Your task to perform on an android device: Open battery settings Image 0: 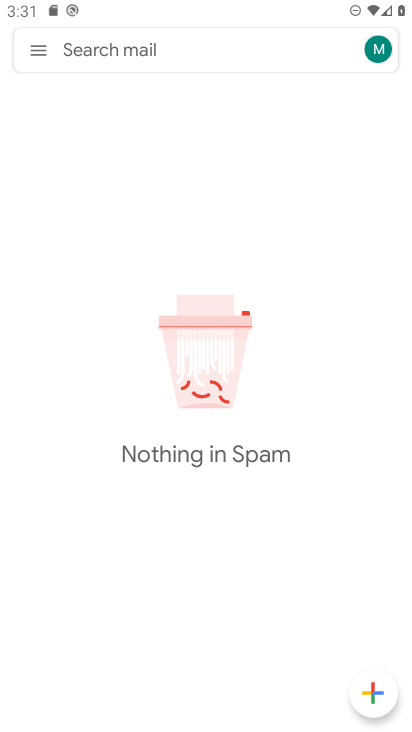
Step 0: drag from (293, 608) to (309, 170)
Your task to perform on an android device: Open battery settings Image 1: 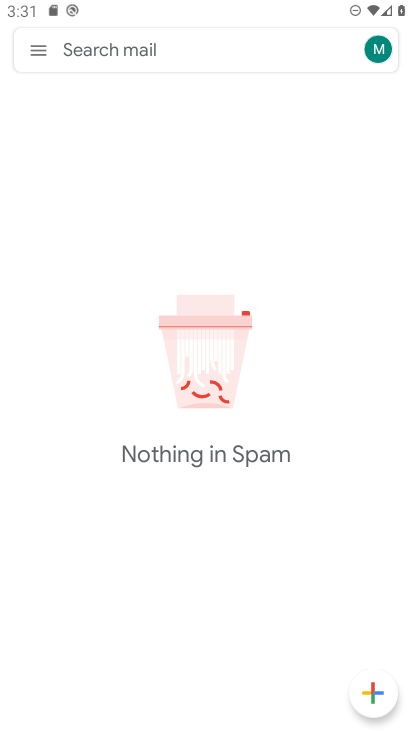
Step 1: press back button
Your task to perform on an android device: Open battery settings Image 2: 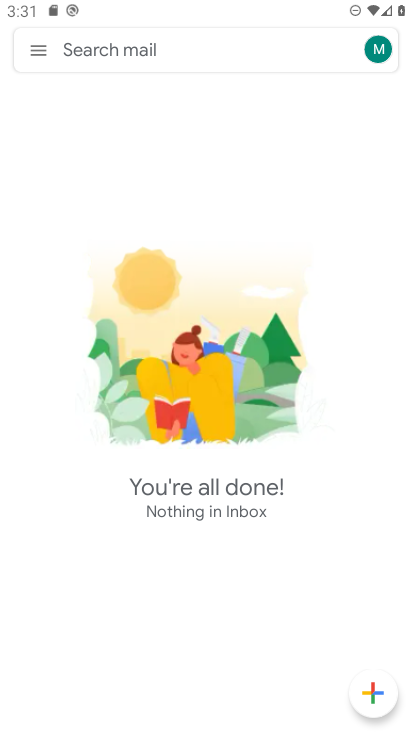
Step 2: press back button
Your task to perform on an android device: Open battery settings Image 3: 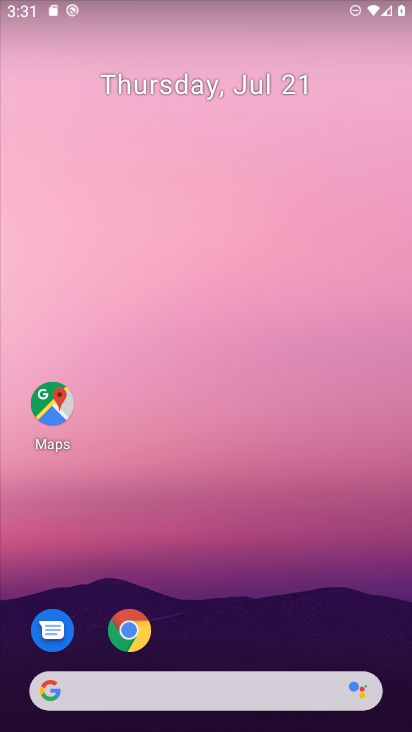
Step 3: drag from (130, 611) to (138, 13)
Your task to perform on an android device: Open battery settings Image 4: 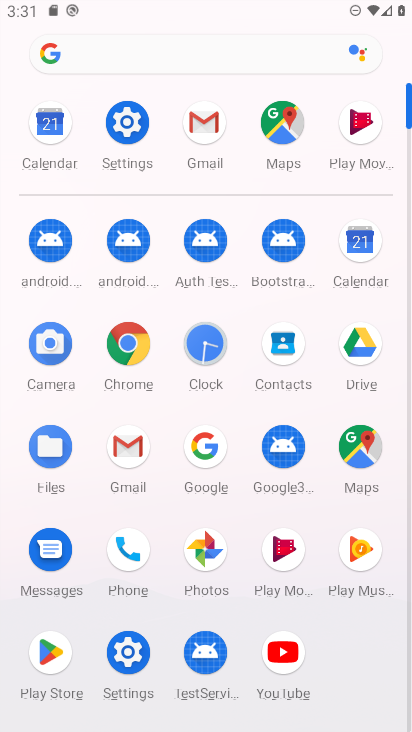
Step 4: click (126, 114)
Your task to perform on an android device: Open battery settings Image 5: 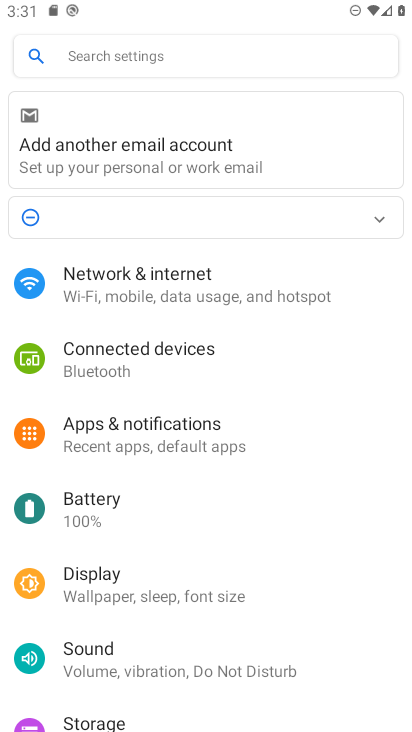
Step 5: click (125, 505)
Your task to perform on an android device: Open battery settings Image 6: 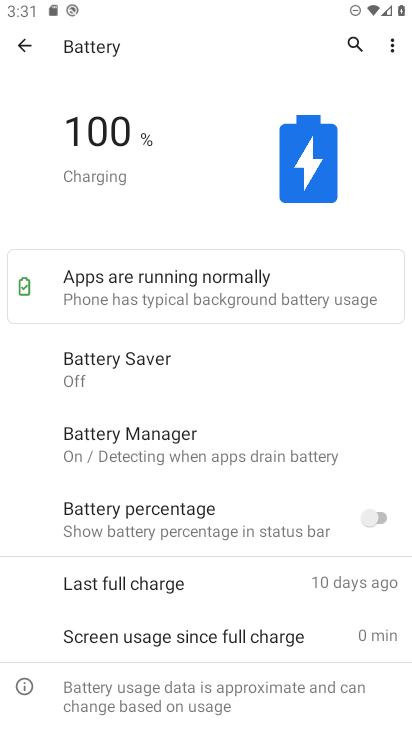
Step 6: task complete